Your task to perform on an android device: View the shopping cart on newegg.com. Image 0: 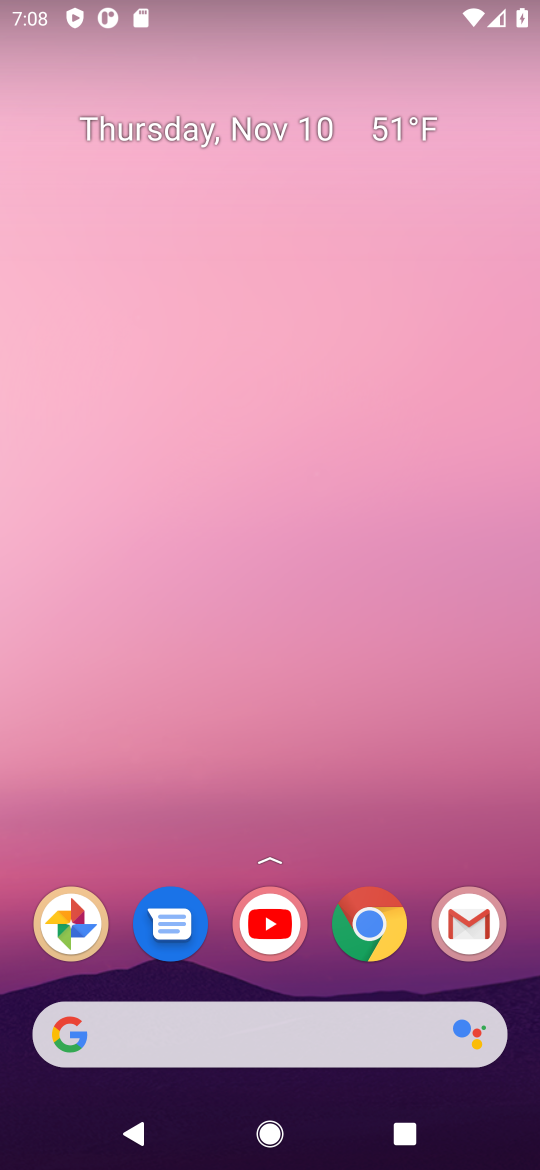
Step 0: click (364, 940)
Your task to perform on an android device: View the shopping cart on newegg.com. Image 1: 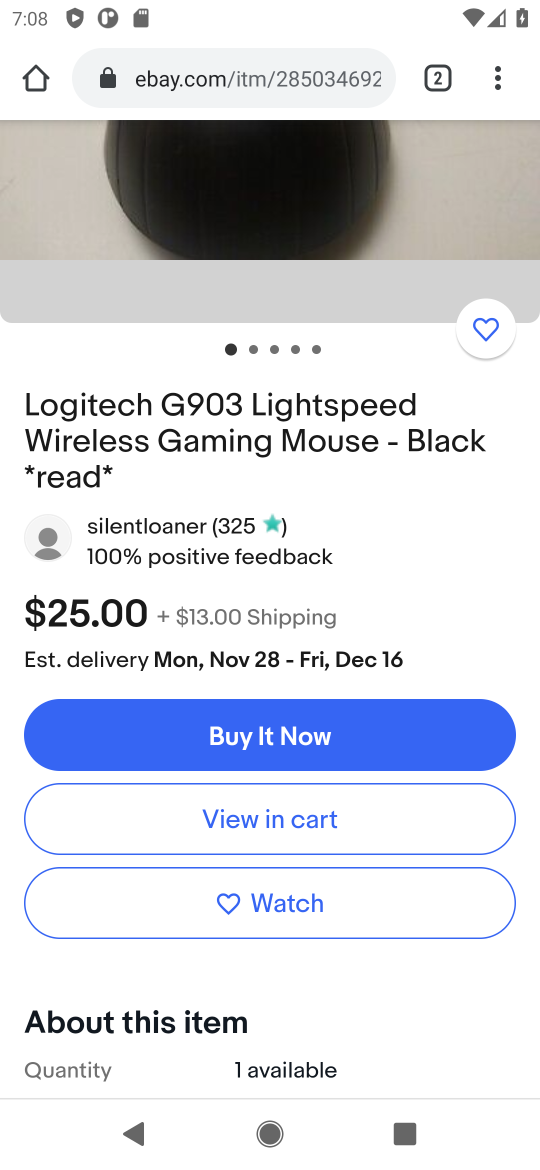
Step 1: click (201, 85)
Your task to perform on an android device: View the shopping cart on newegg.com. Image 2: 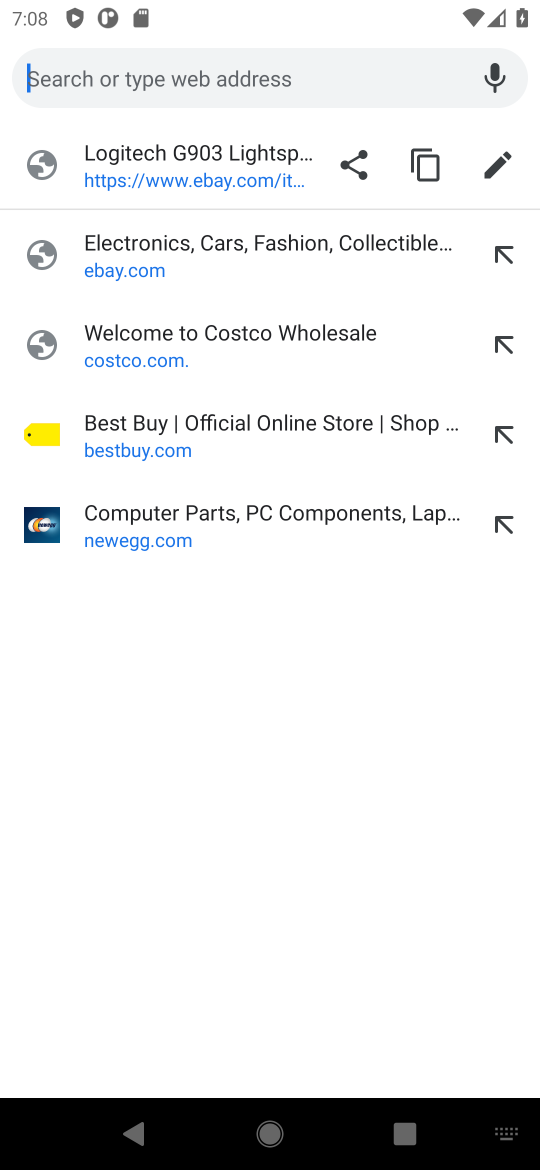
Step 2: click (101, 532)
Your task to perform on an android device: View the shopping cart on newegg.com. Image 3: 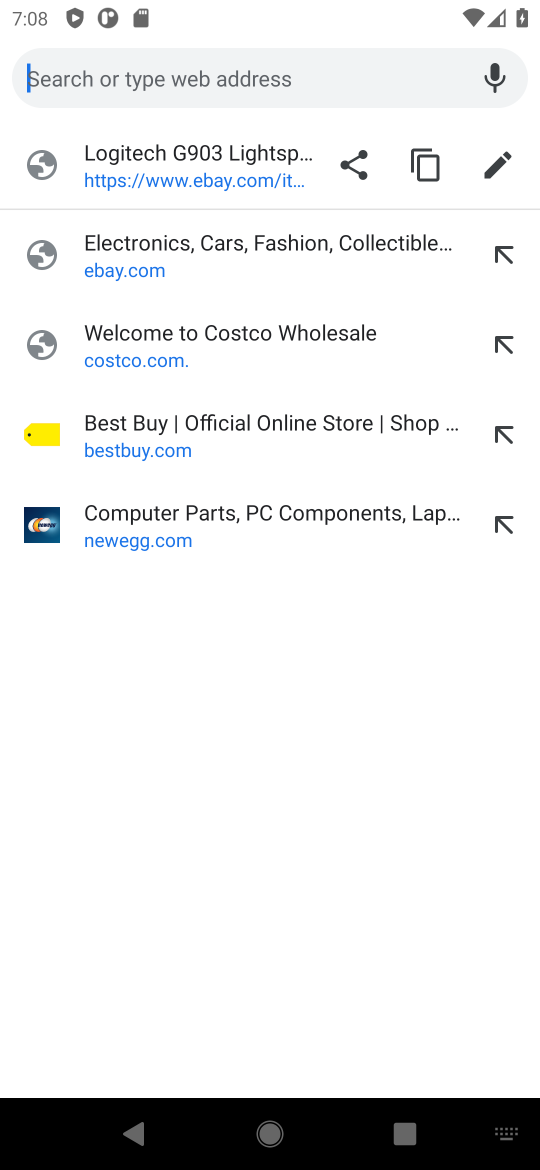
Step 3: click (85, 524)
Your task to perform on an android device: View the shopping cart on newegg.com. Image 4: 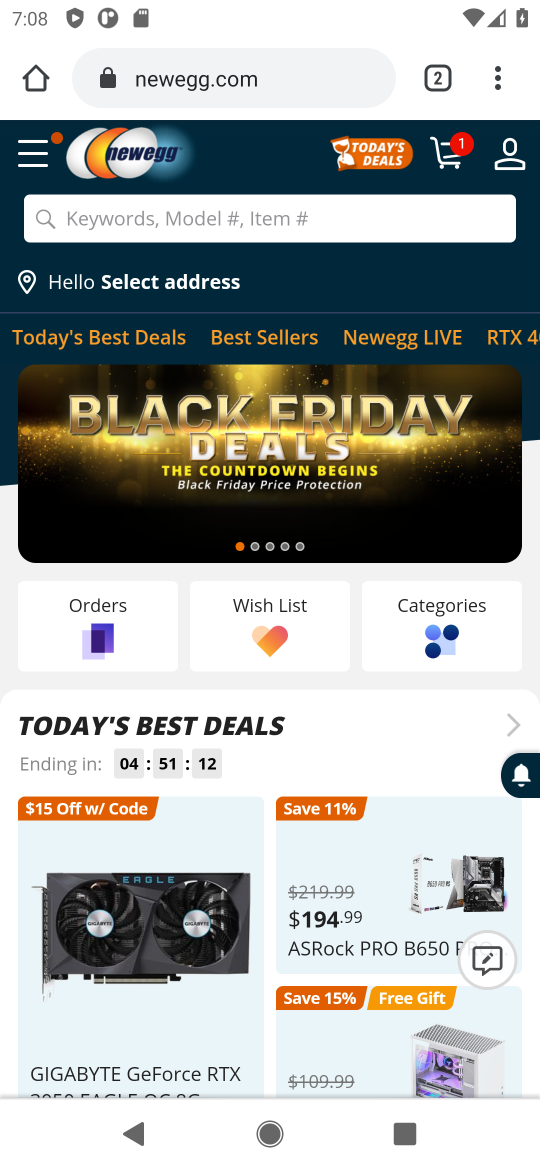
Step 4: click (450, 154)
Your task to perform on an android device: View the shopping cart on newegg.com. Image 5: 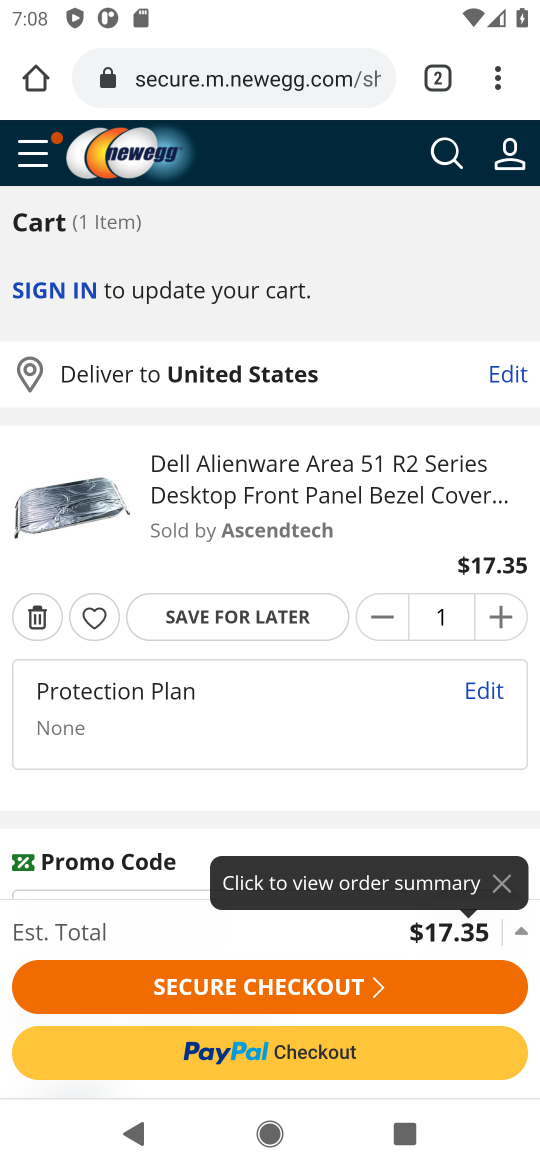
Step 5: task complete